Your task to perform on an android device: delete a single message in the gmail app Image 0: 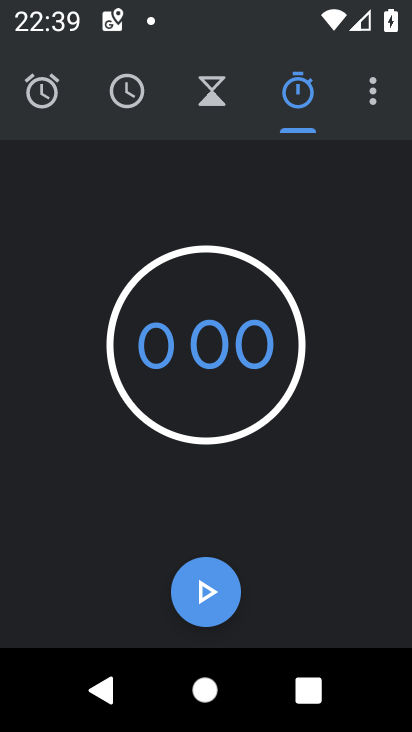
Step 0: press home button
Your task to perform on an android device: delete a single message in the gmail app Image 1: 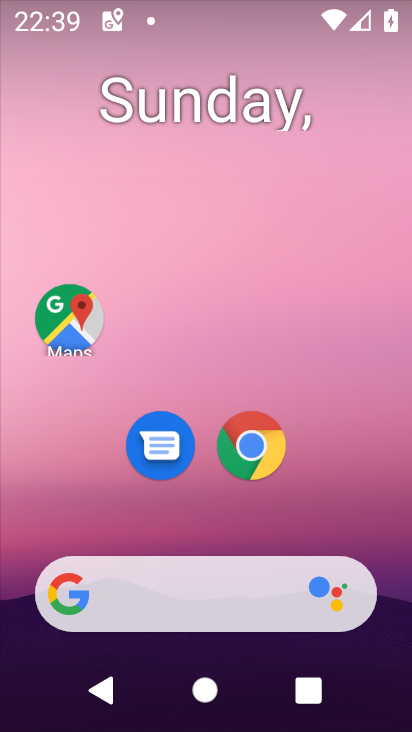
Step 1: drag from (344, 519) to (305, 112)
Your task to perform on an android device: delete a single message in the gmail app Image 2: 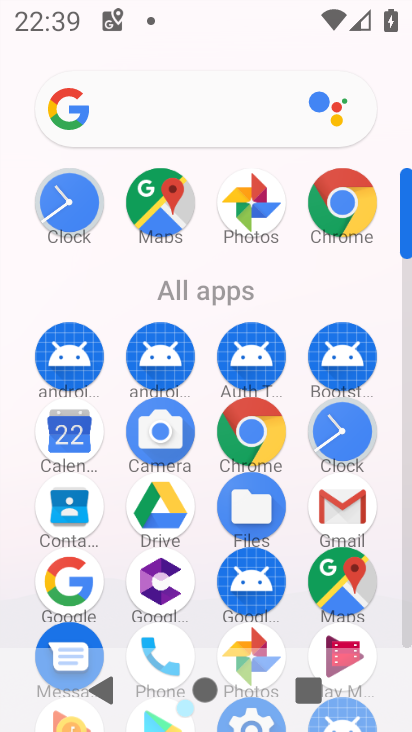
Step 2: drag from (306, 285) to (222, 44)
Your task to perform on an android device: delete a single message in the gmail app Image 3: 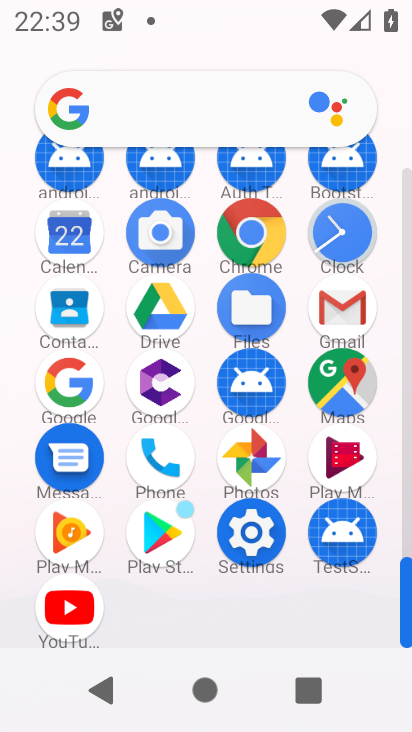
Step 3: click (338, 303)
Your task to perform on an android device: delete a single message in the gmail app Image 4: 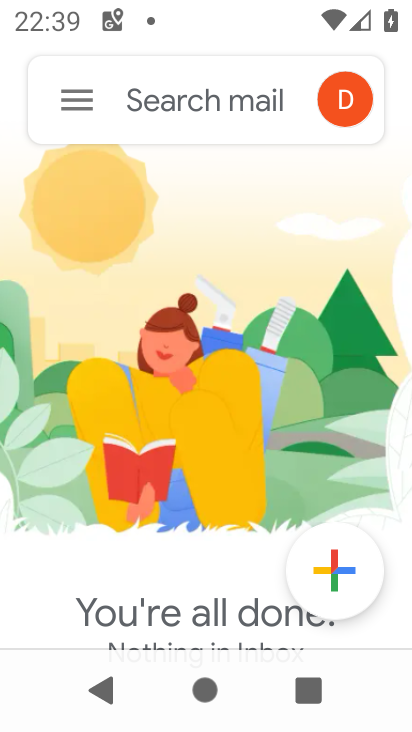
Step 4: task complete